Your task to perform on an android device: all mails in gmail Image 0: 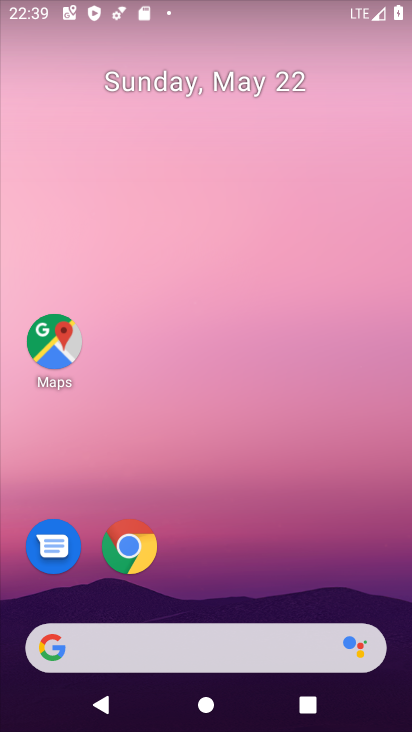
Step 0: click (336, 81)
Your task to perform on an android device: all mails in gmail Image 1: 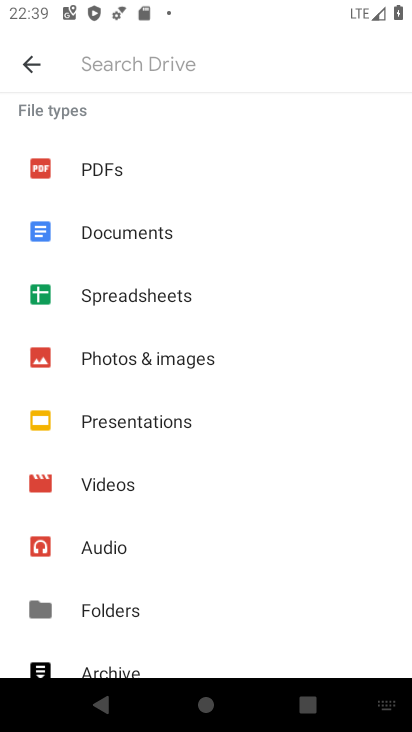
Step 1: press home button
Your task to perform on an android device: all mails in gmail Image 2: 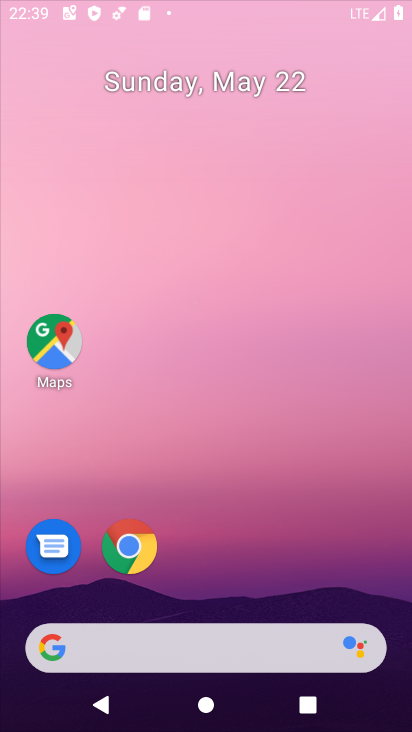
Step 2: drag from (207, 622) to (283, 116)
Your task to perform on an android device: all mails in gmail Image 3: 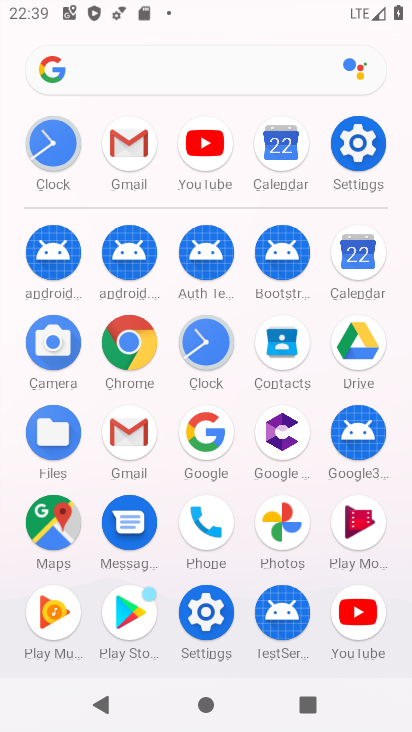
Step 3: click (203, 338)
Your task to perform on an android device: all mails in gmail Image 4: 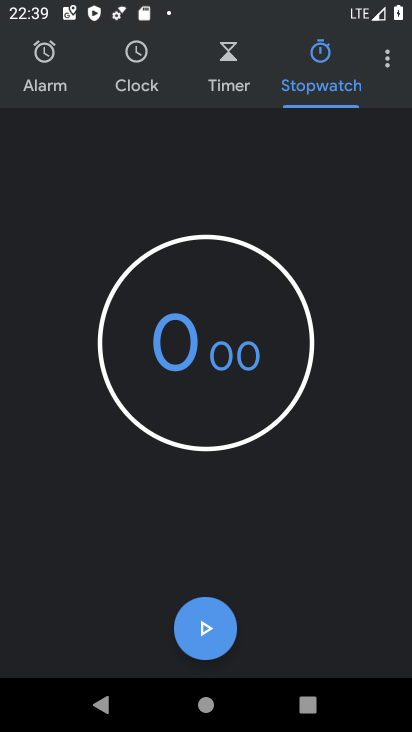
Step 4: press home button
Your task to perform on an android device: all mails in gmail Image 5: 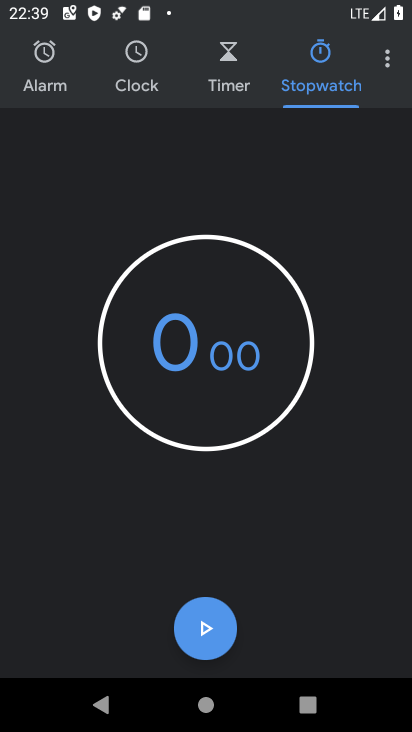
Step 5: press home button
Your task to perform on an android device: all mails in gmail Image 6: 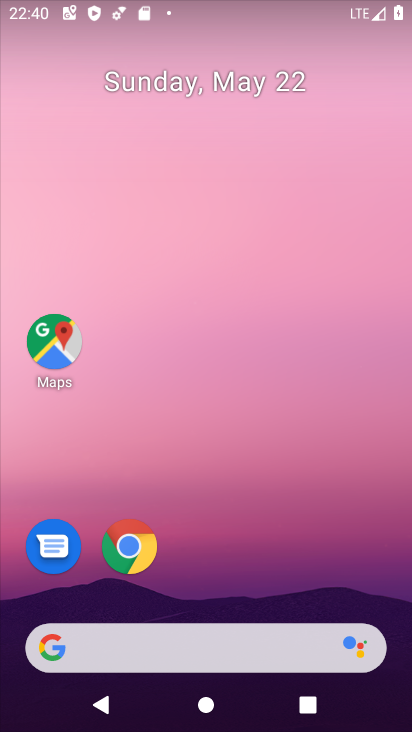
Step 6: drag from (182, 622) to (228, 291)
Your task to perform on an android device: all mails in gmail Image 7: 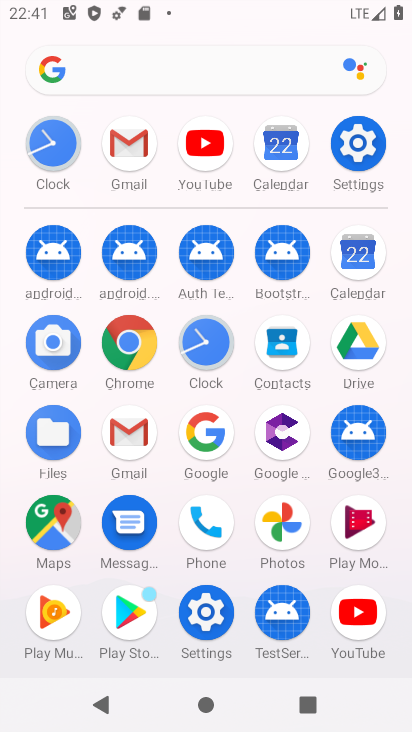
Step 7: click (126, 419)
Your task to perform on an android device: all mails in gmail Image 8: 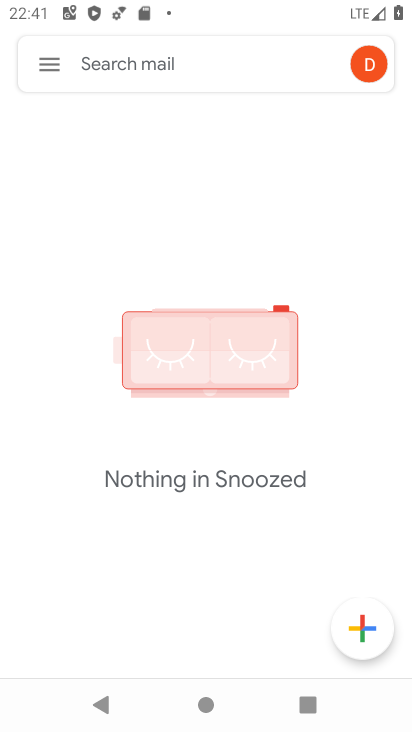
Step 8: click (48, 66)
Your task to perform on an android device: all mails in gmail Image 9: 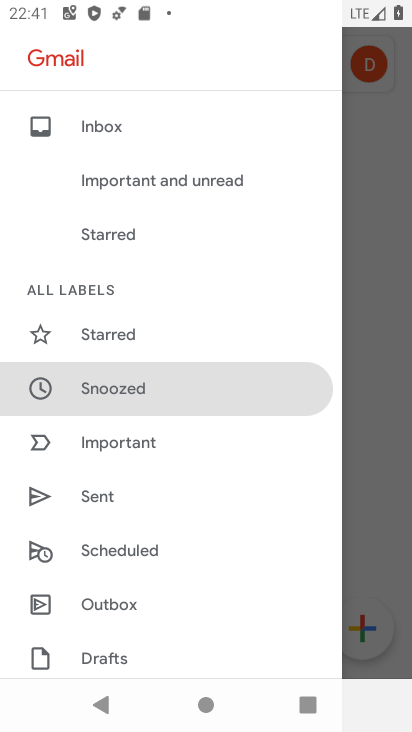
Step 9: drag from (126, 592) to (275, 46)
Your task to perform on an android device: all mails in gmail Image 10: 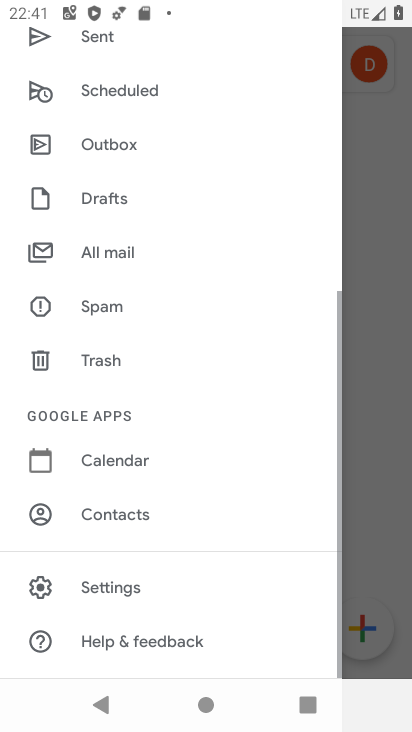
Step 10: click (128, 242)
Your task to perform on an android device: all mails in gmail Image 11: 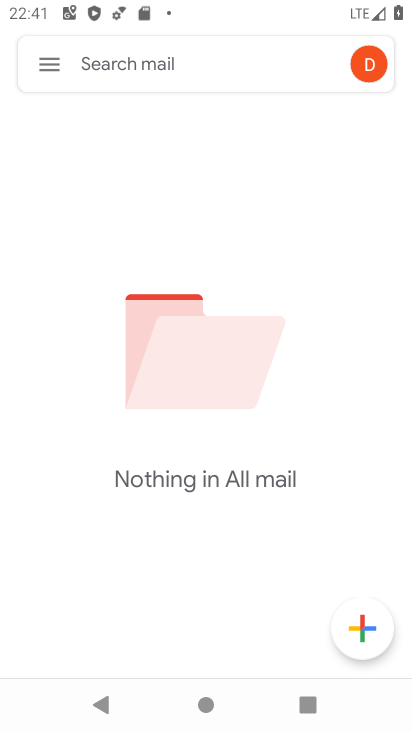
Step 11: task complete